Your task to perform on an android device: empty trash in the gmail app Image 0: 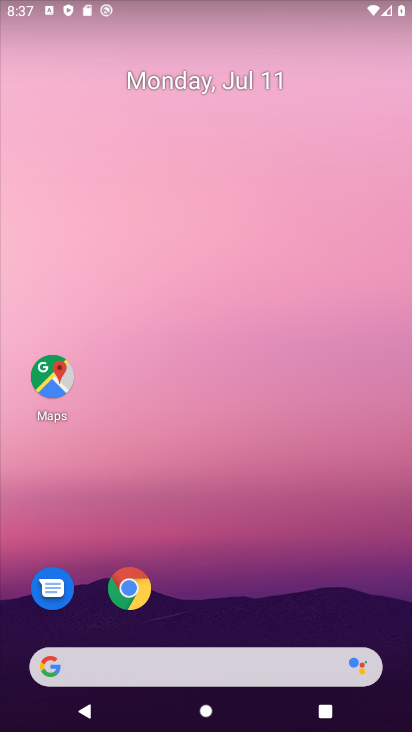
Step 0: drag from (396, 658) to (299, 23)
Your task to perform on an android device: empty trash in the gmail app Image 1: 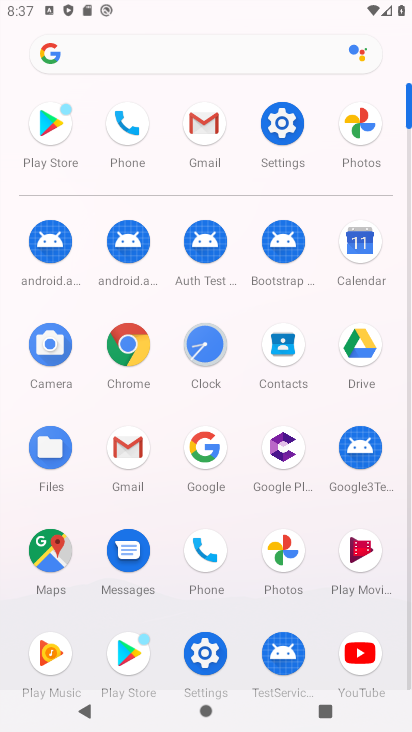
Step 1: click (205, 123)
Your task to perform on an android device: empty trash in the gmail app Image 2: 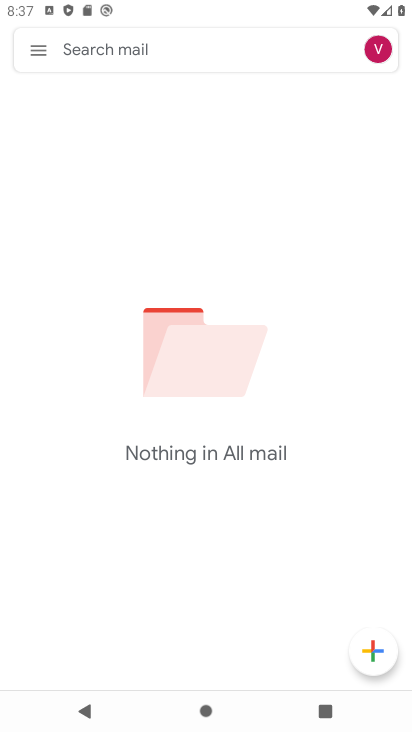
Step 2: click (38, 42)
Your task to perform on an android device: empty trash in the gmail app Image 3: 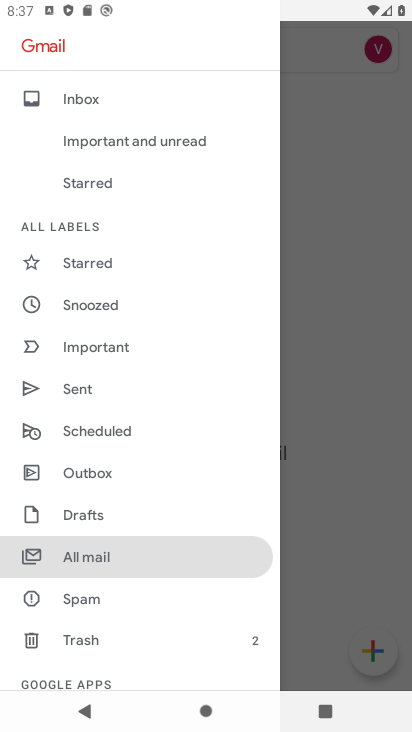
Step 3: click (104, 638)
Your task to perform on an android device: empty trash in the gmail app Image 4: 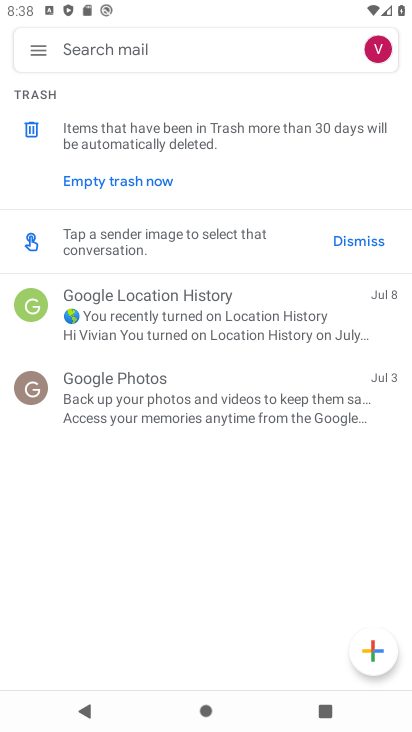
Step 4: click (122, 175)
Your task to perform on an android device: empty trash in the gmail app Image 5: 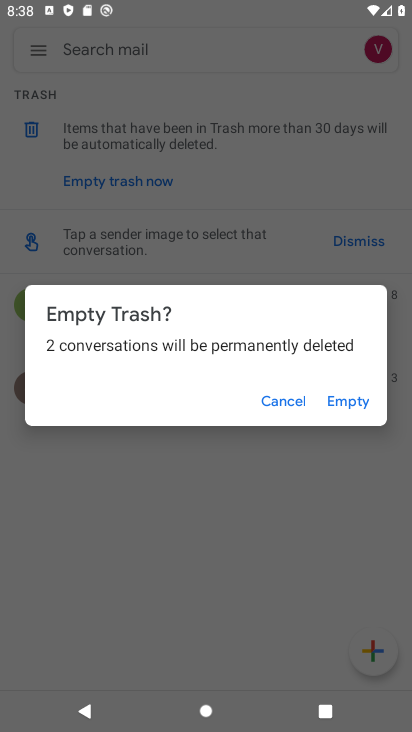
Step 5: click (356, 398)
Your task to perform on an android device: empty trash in the gmail app Image 6: 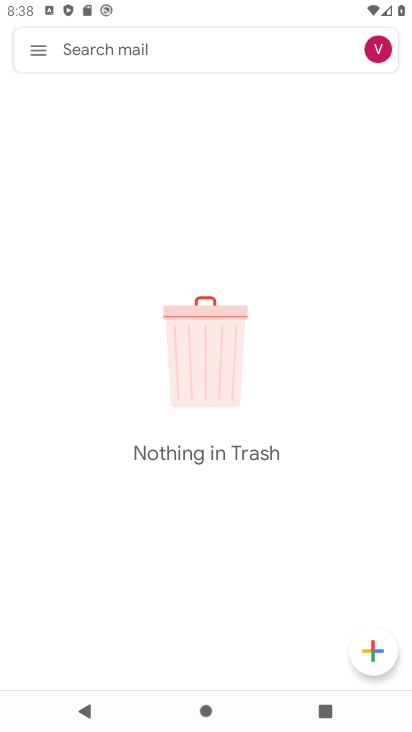
Step 6: task complete